Your task to perform on an android device: turn smart compose on in the gmail app Image 0: 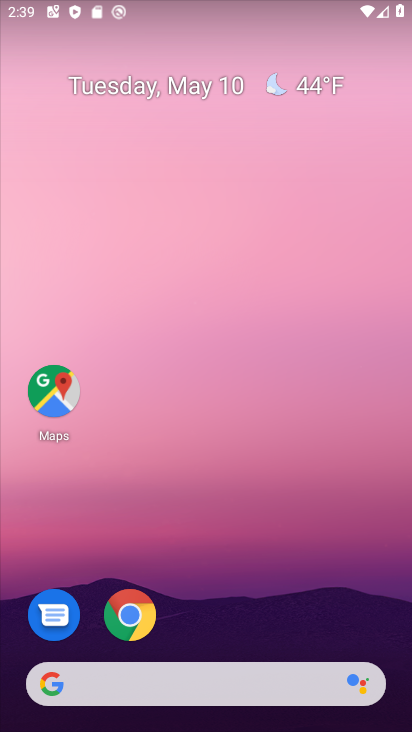
Step 0: drag from (263, 619) to (258, 33)
Your task to perform on an android device: turn smart compose on in the gmail app Image 1: 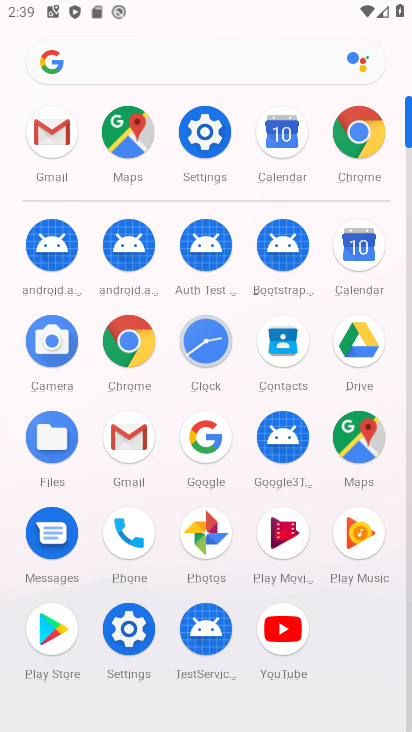
Step 1: click (72, 141)
Your task to perform on an android device: turn smart compose on in the gmail app Image 2: 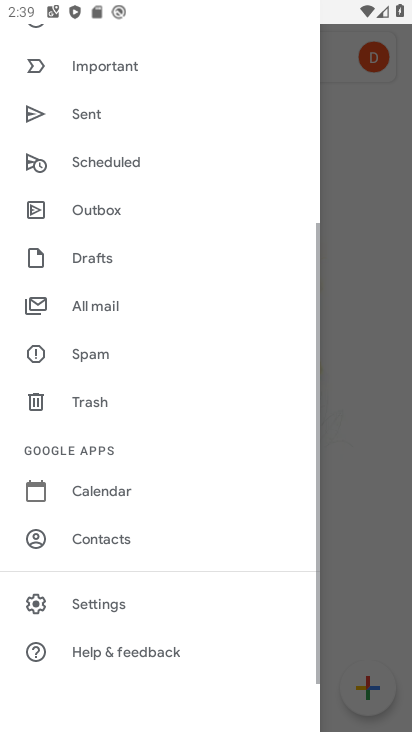
Step 2: click (46, 139)
Your task to perform on an android device: turn smart compose on in the gmail app Image 3: 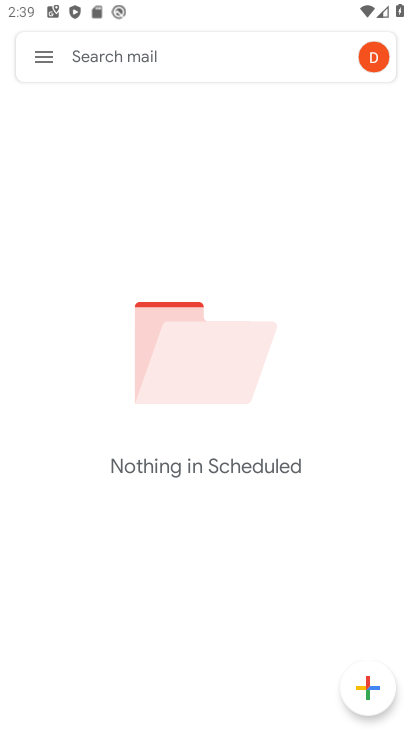
Step 3: click (40, 63)
Your task to perform on an android device: turn smart compose on in the gmail app Image 4: 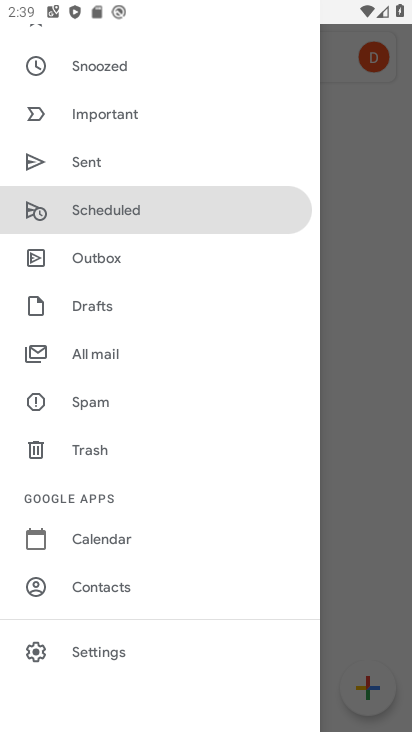
Step 4: click (104, 653)
Your task to perform on an android device: turn smart compose on in the gmail app Image 5: 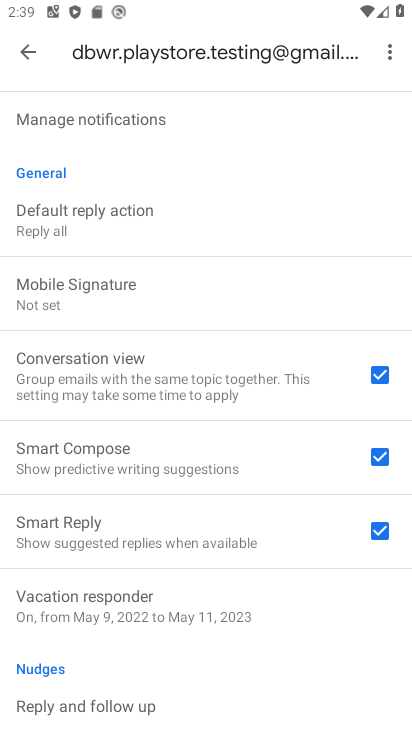
Step 5: task complete